Your task to perform on an android device: change your default location settings in chrome Image 0: 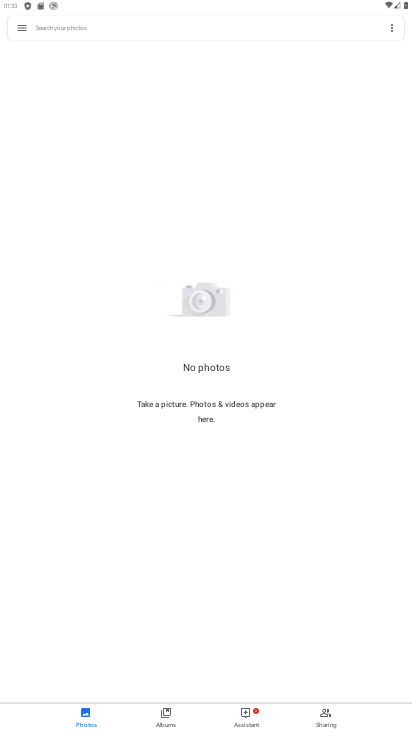
Step 0: press home button
Your task to perform on an android device: change your default location settings in chrome Image 1: 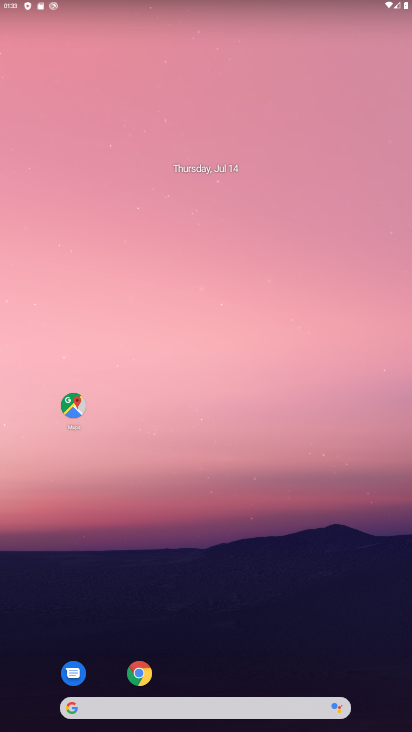
Step 1: click (138, 670)
Your task to perform on an android device: change your default location settings in chrome Image 2: 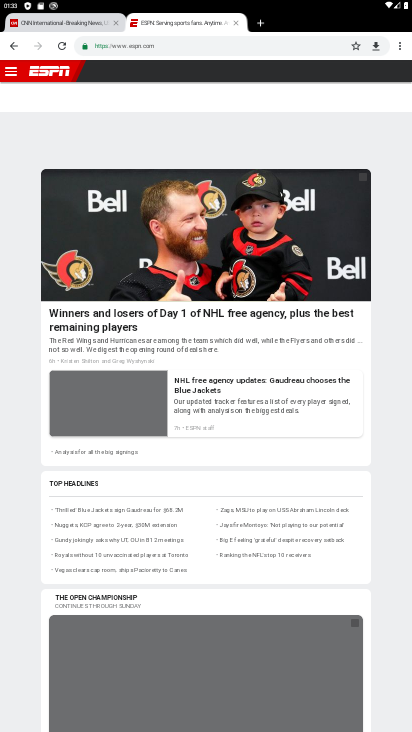
Step 2: click (396, 53)
Your task to perform on an android device: change your default location settings in chrome Image 3: 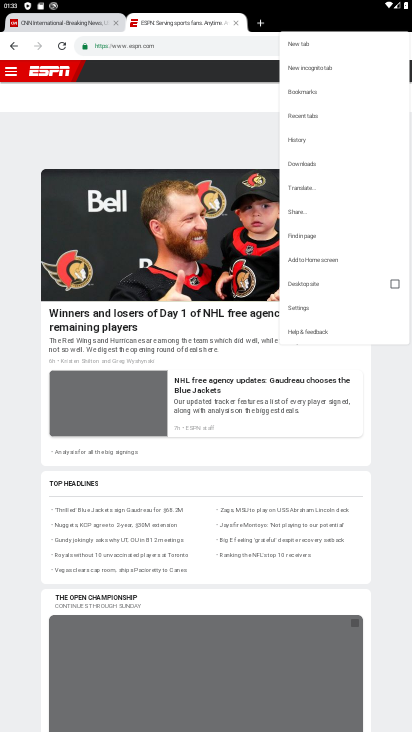
Step 3: click (323, 304)
Your task to perform on an android device: change your default location settings in chrome Image 4: 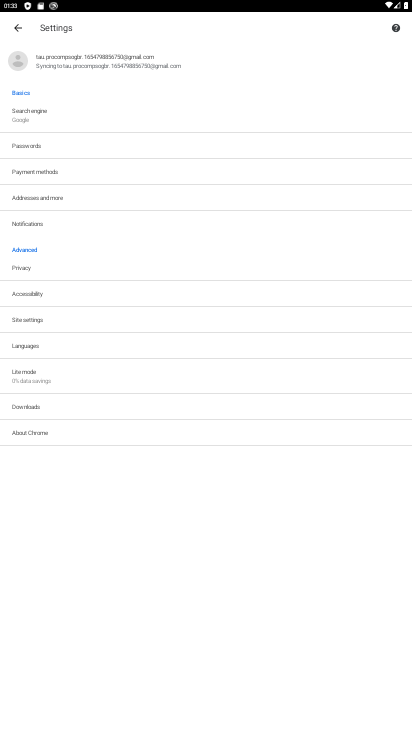
Step 4: click (89, 317)
Your task to perform on an android device: change your default location settings in chrome Image 5: 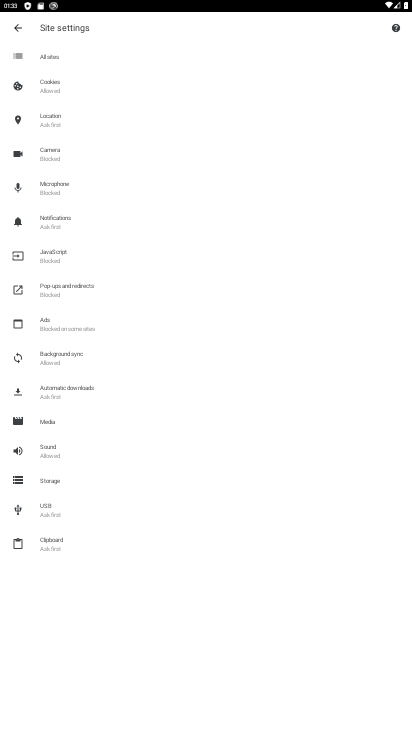
Step 5: click (10, 31)
Your task to perform on an android device: change your default location settings in chrome Image 6: 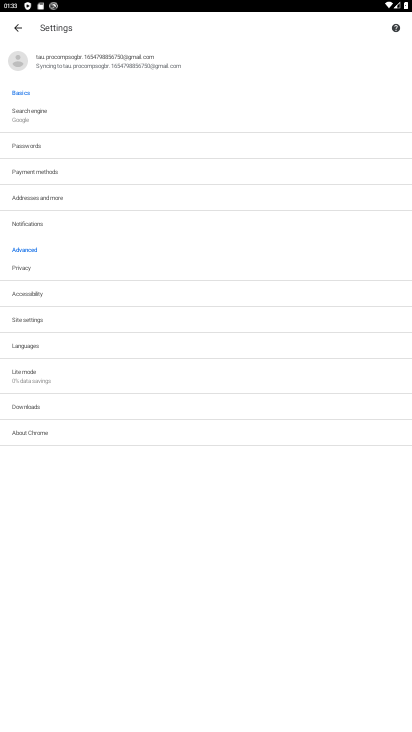
Step 6: click (58, 191)
Your task to perform on an android device: change your default location settings in chrome Image 7: 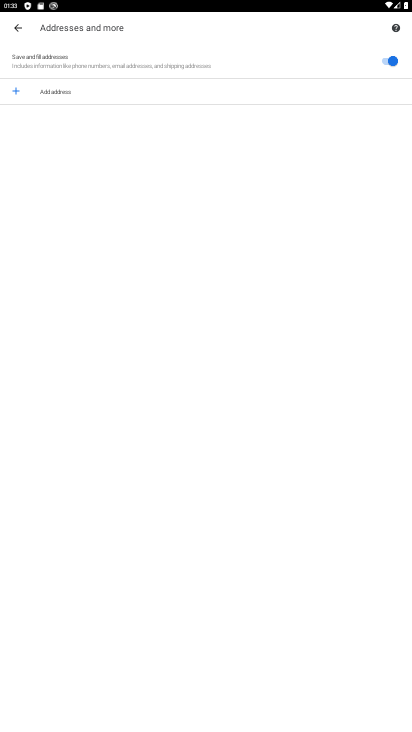
Step 7: task complete